Your task to perform on an android device: Open the map Image 0: 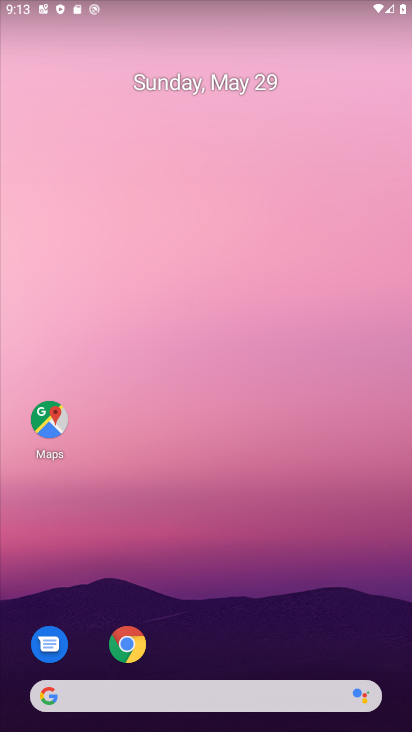
Step 0: click (43, 421)
Your task to perform on an android device: Open the map Image 1: 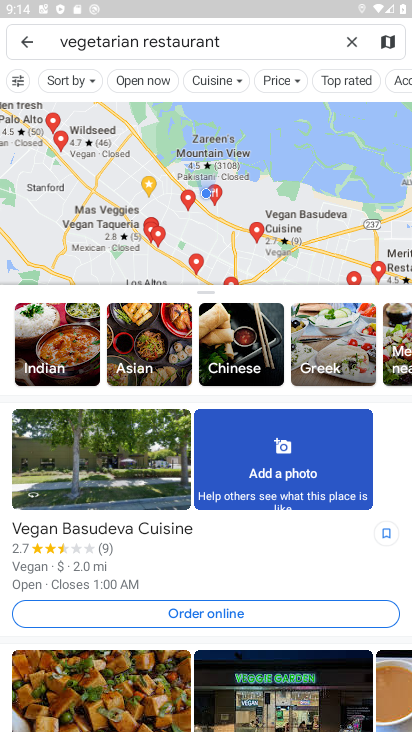
Step 1: task complete